Your task to perform on an android device: Open Google Chrome and open the bookmarks view Image 0: 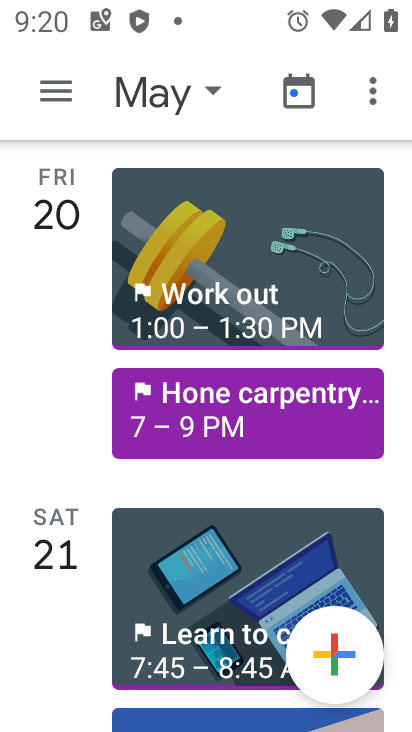
Step 0: press home button
Your task to perform on an android device: Open Google Chrome and open the bookmarks view Image 1: 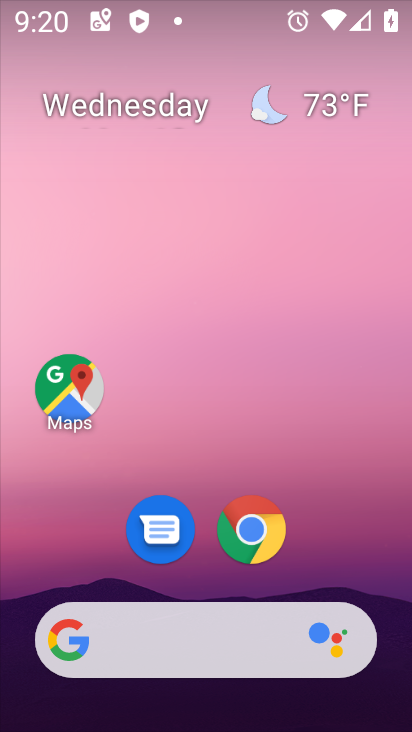
Step 1: drag from (393, 583) to (356, 167)
Your task to perform on an android device: Open Google Chrome and open the bookmarks view Image 2: 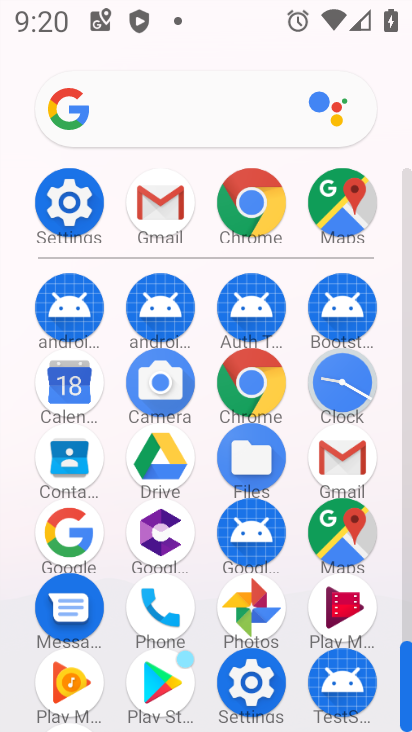
Step 2: click (264, 390)
Your task to perform on an android device: Open Google Chrome and open the bookmarks view Image 3: 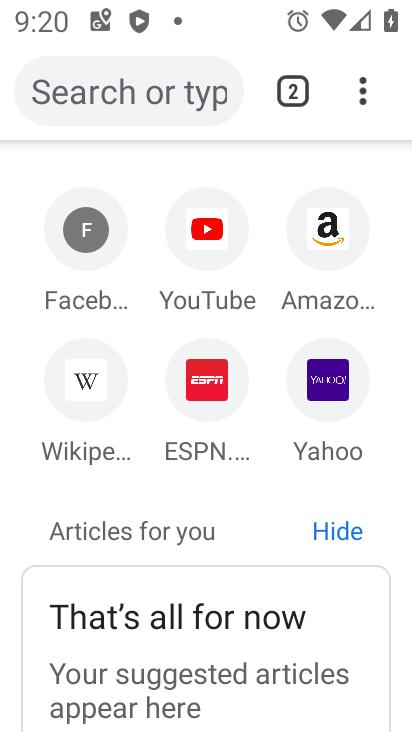
Step 3: click (361, 105)
Your task to perform on an android device: Open Google Chrome and open the bookmarks view Image 4: 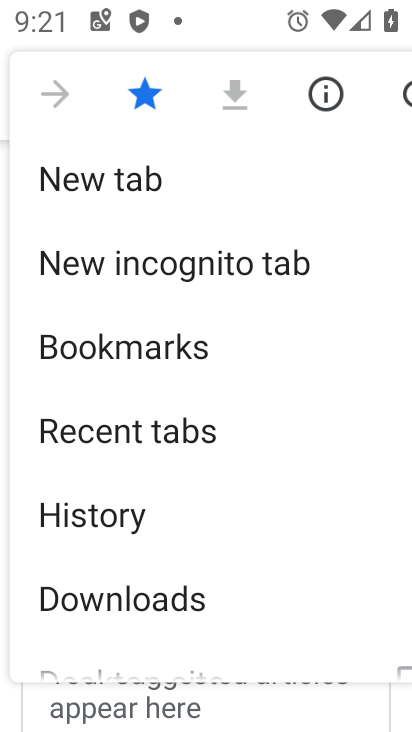
Step 4: drag from (339, 512) to (337, 406)
Your task to perform on an android device: Open Google Chrome and open the bookmarks view Image 5: 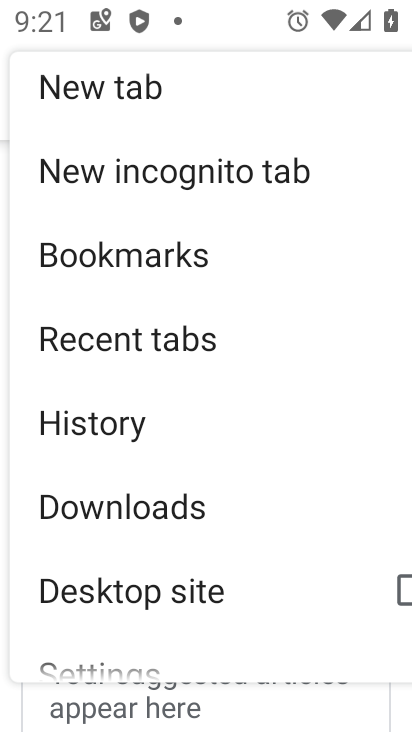
Step 5: drag from (330, 556) to (319, 488)
Your task to perform on an android device: Open Google Chrome and open the bookmarks view Image 6: 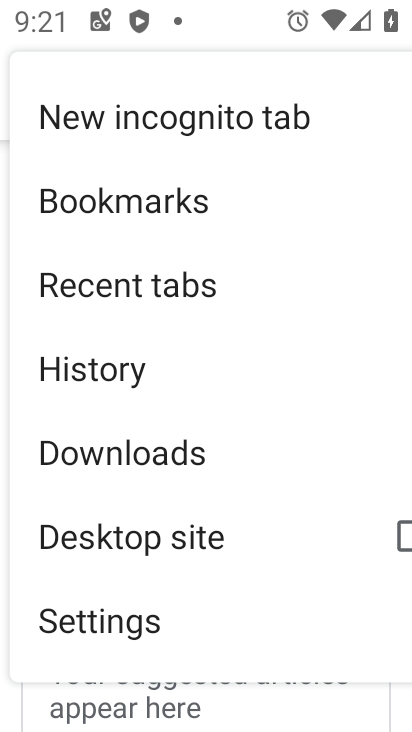
Step 6: drag from (308, 550) to (301, 444)
Your task to perform on an android device: Open Google Chrome and open the bookmarks view Image 7: 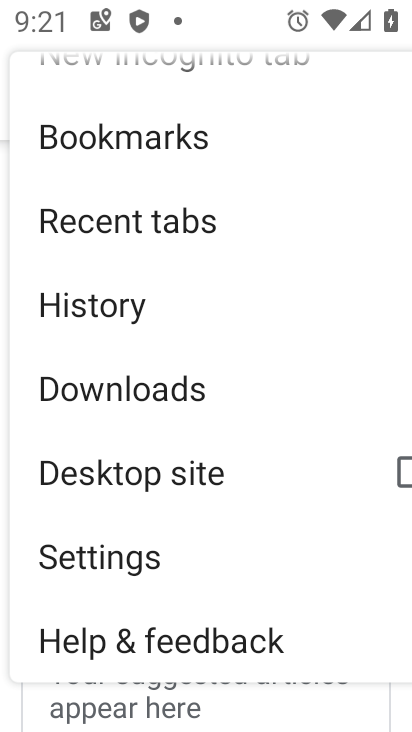
Step 7: click (177, 150)
Your task to perform on an android device: Open Google Chrome and open the bookmarks view Image 8: 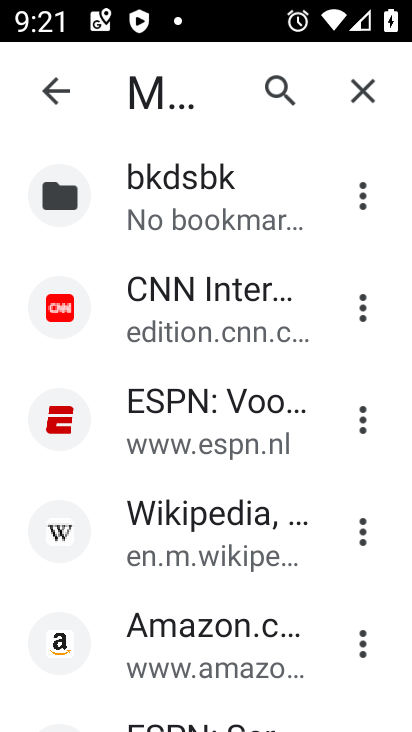
Step 8: task complete